Your task to perform on an android device: empty trash in google photos Image 0: 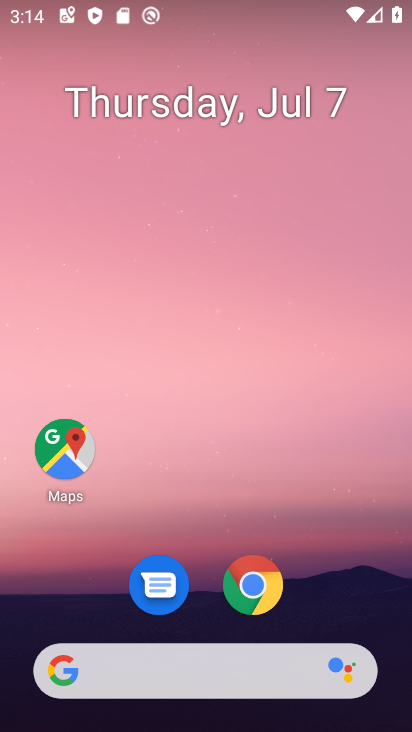
Step 0: drag from (236, 427) to (237, 11)
Your task to perform on an android device: empty trash in google photos Image 1: 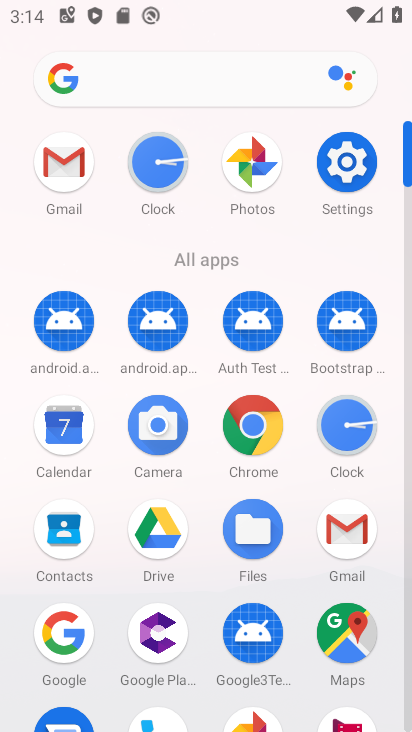
Step 1: click (255, 154)
Your task to perform on an android device: empty trash in google photos Image 2: 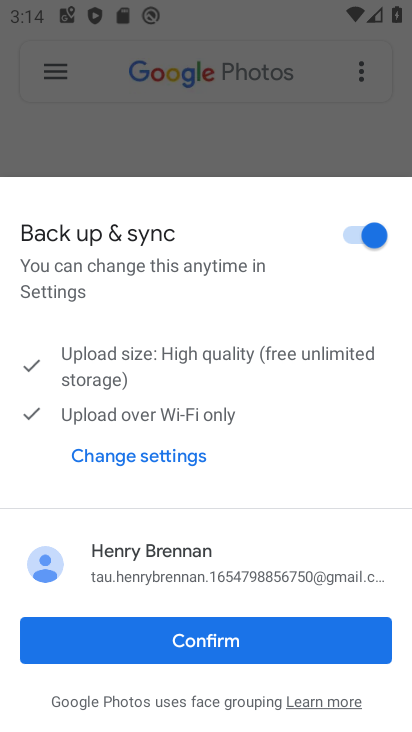
Step 2: click (267, 641)
Your task to perform on an android device: empty trash in google photos Image 3: 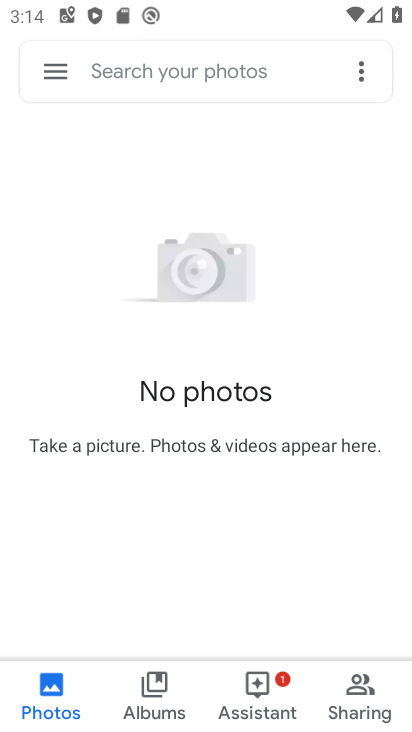
Step 3: click (54, 56)
Your task to perform on an android device: empty trash in google photos Image 4: 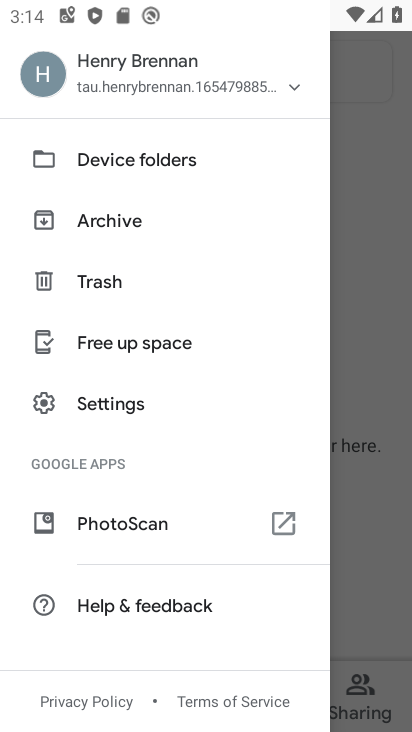
Step 4: click (107, 276)
Your task to perform on an android device: empty trash in google photos Image 5: 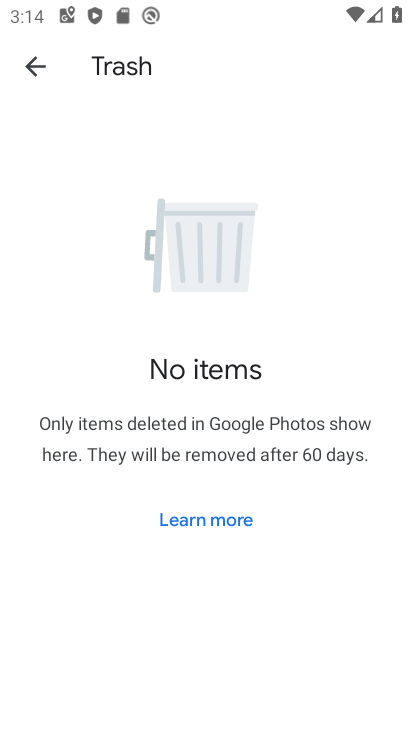
Step 5: task complete